Your task to perform on an android device: open app "Move to iOS" Image 0: 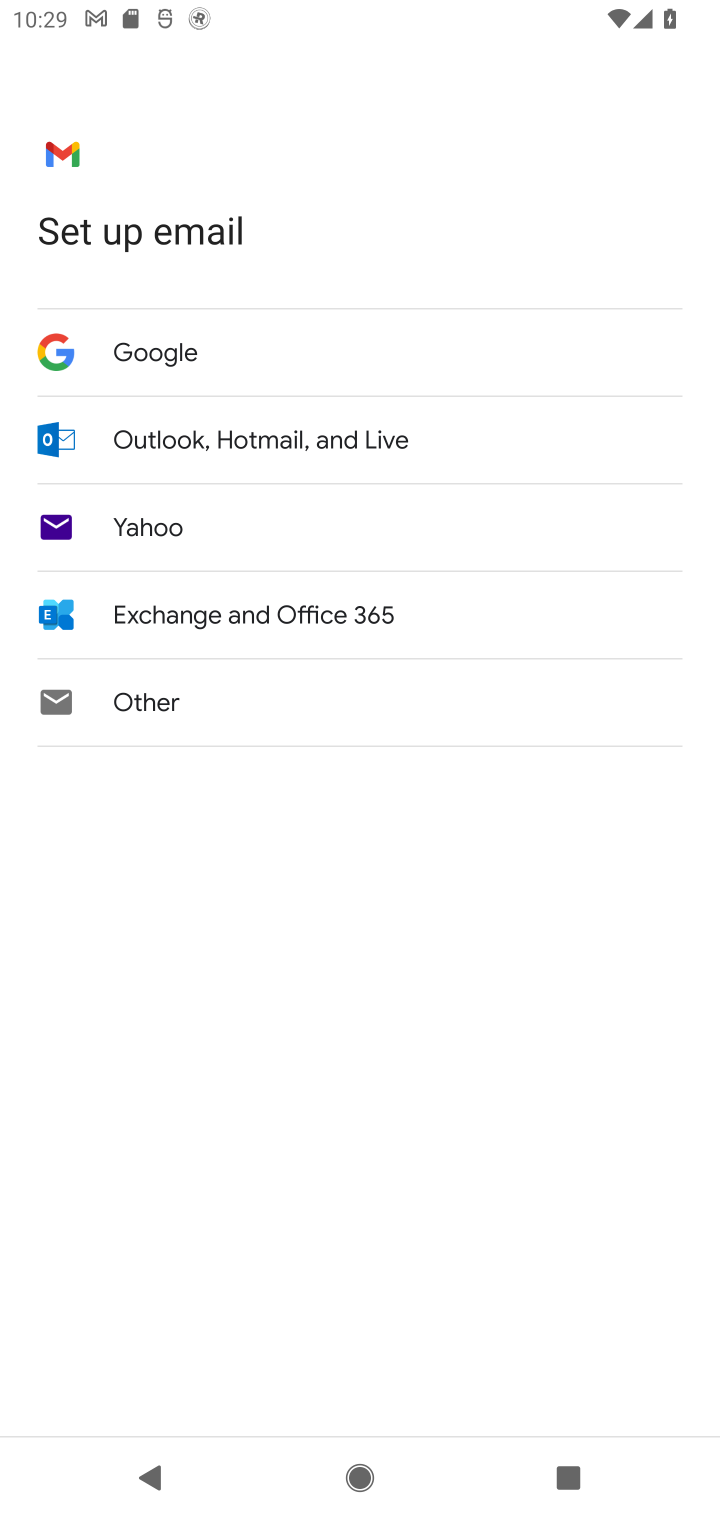
Step 0: press home button
Your task to perform on an android device: open app "Move to iOS" Image 1: 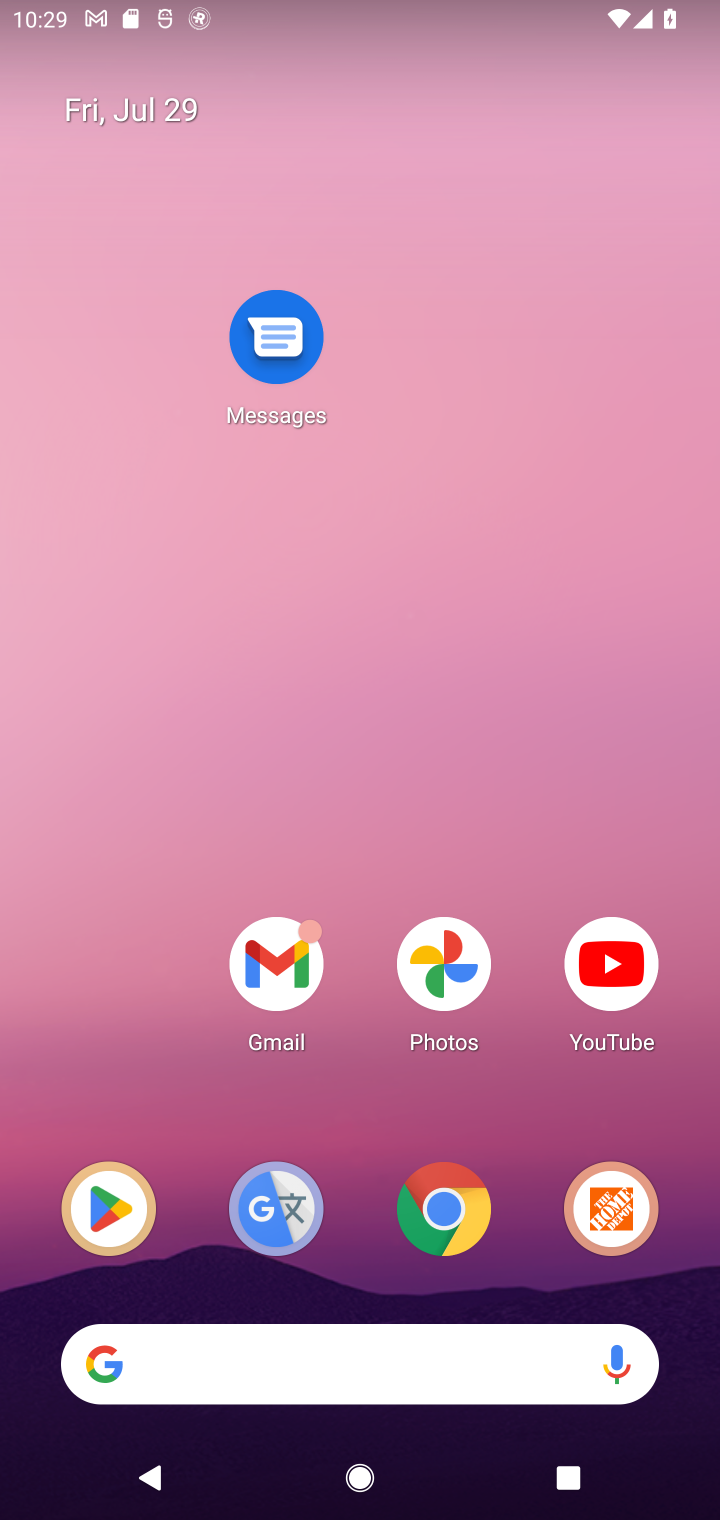
Step 1: drag from (368, 1370) to (435, 107)
Your task to perform on an android device: open app "Move to iOS" Image 2: 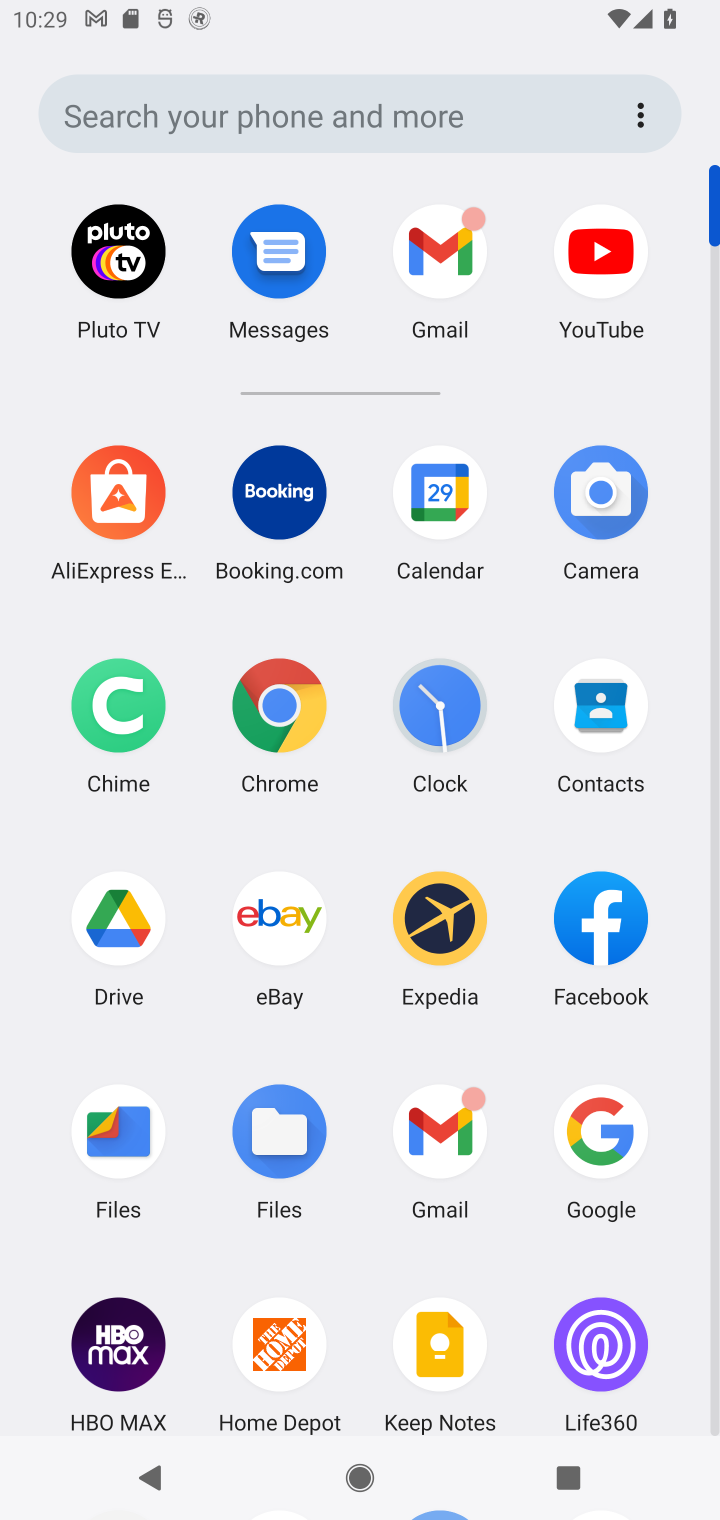
Step 2: drag from (354, 1134) to (437, 550)
Your task to perform on an android device: open app "Move to iOS" Image 3: 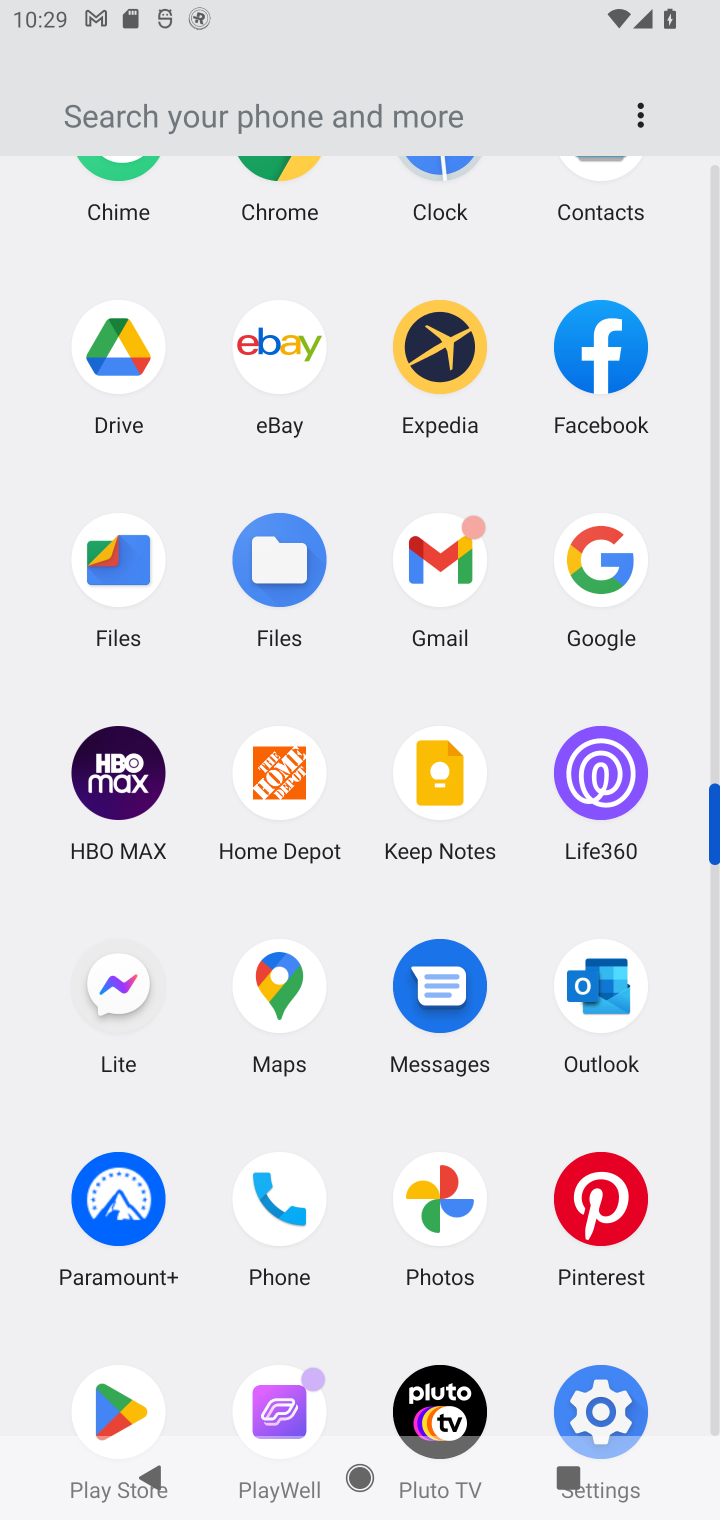
Step 3: click (110, 1408)
Your task to perform on an android device: open app "Move to iOS" Image 4: 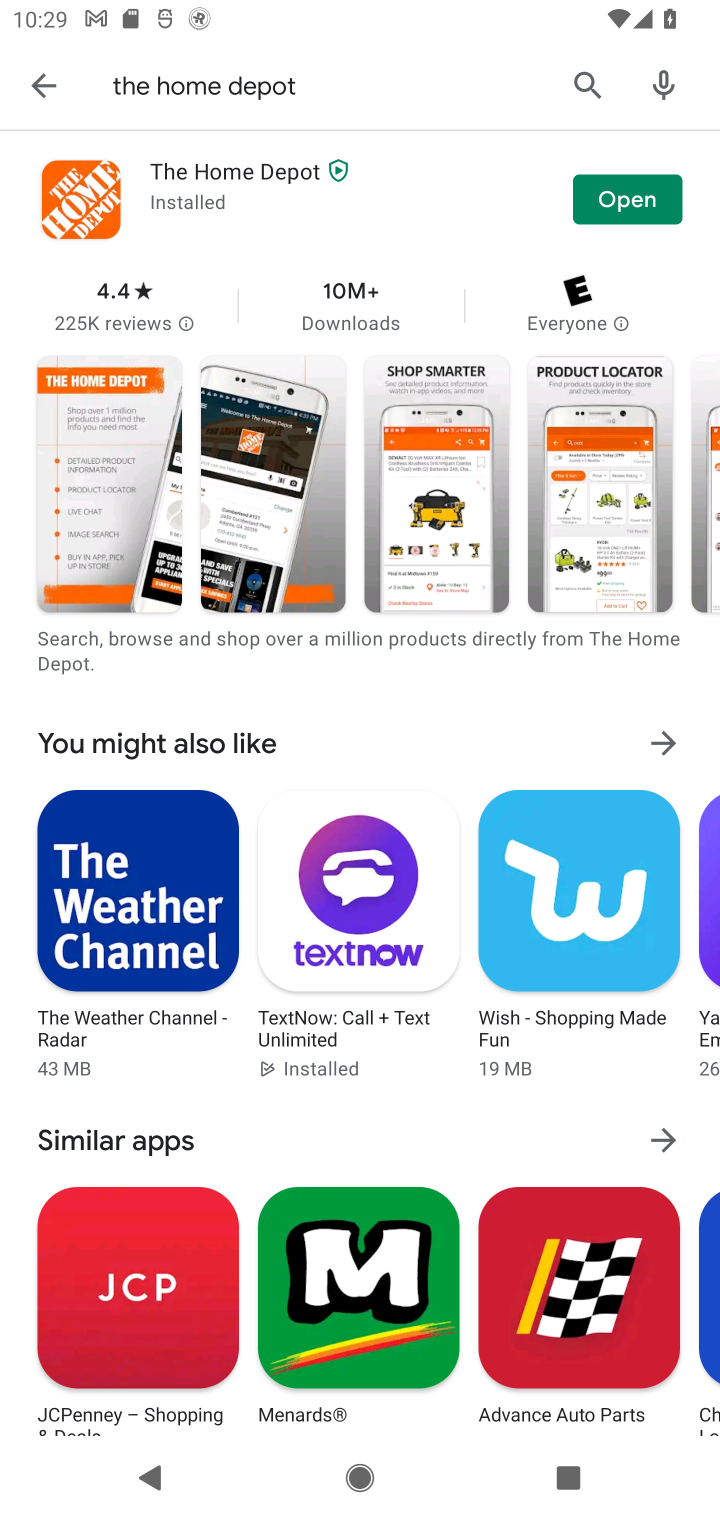
Step 4: click (572, 94)
Your task to perform on an android device: open app "Move to iOS" Image 5: 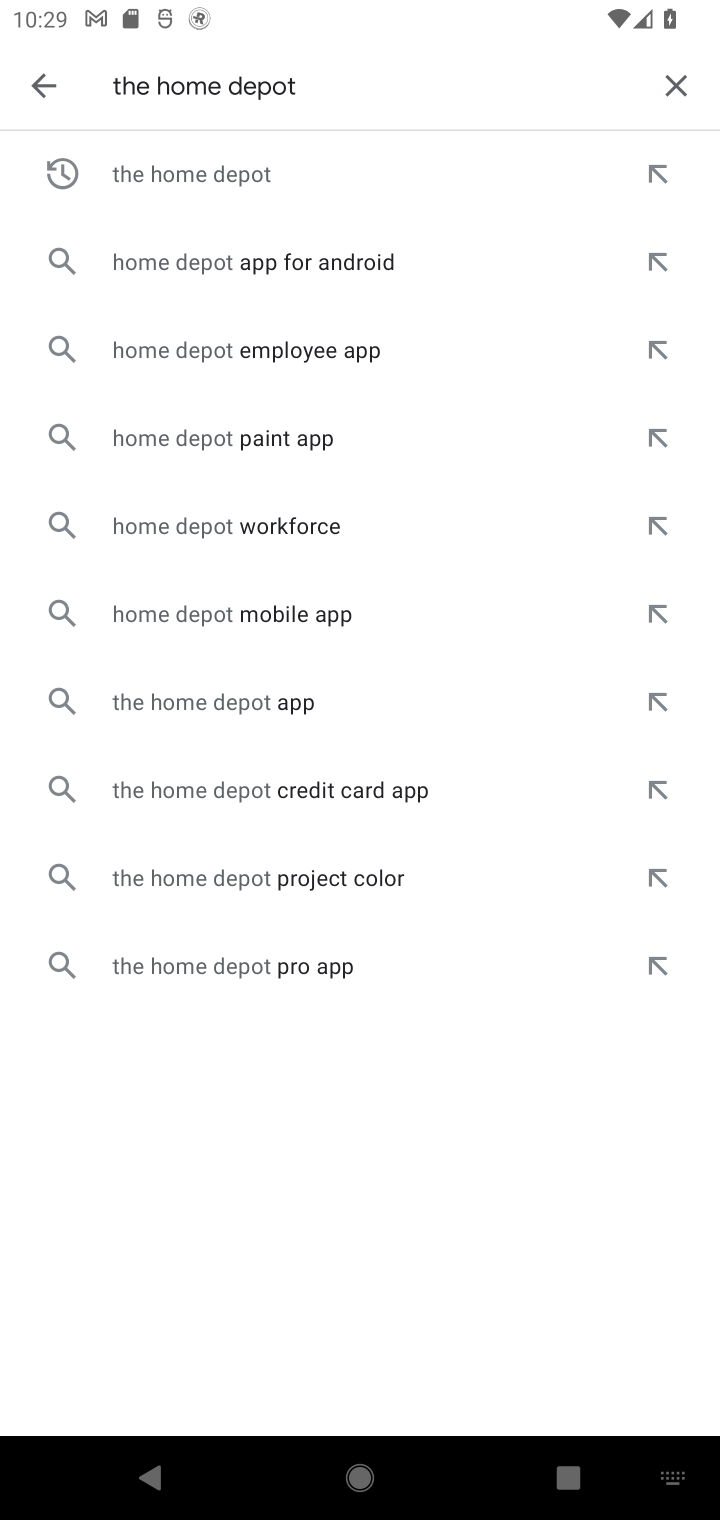
Step 5: click (672, 81)
Your task to perform on an android device: open app "Move to iOS" Image 6: 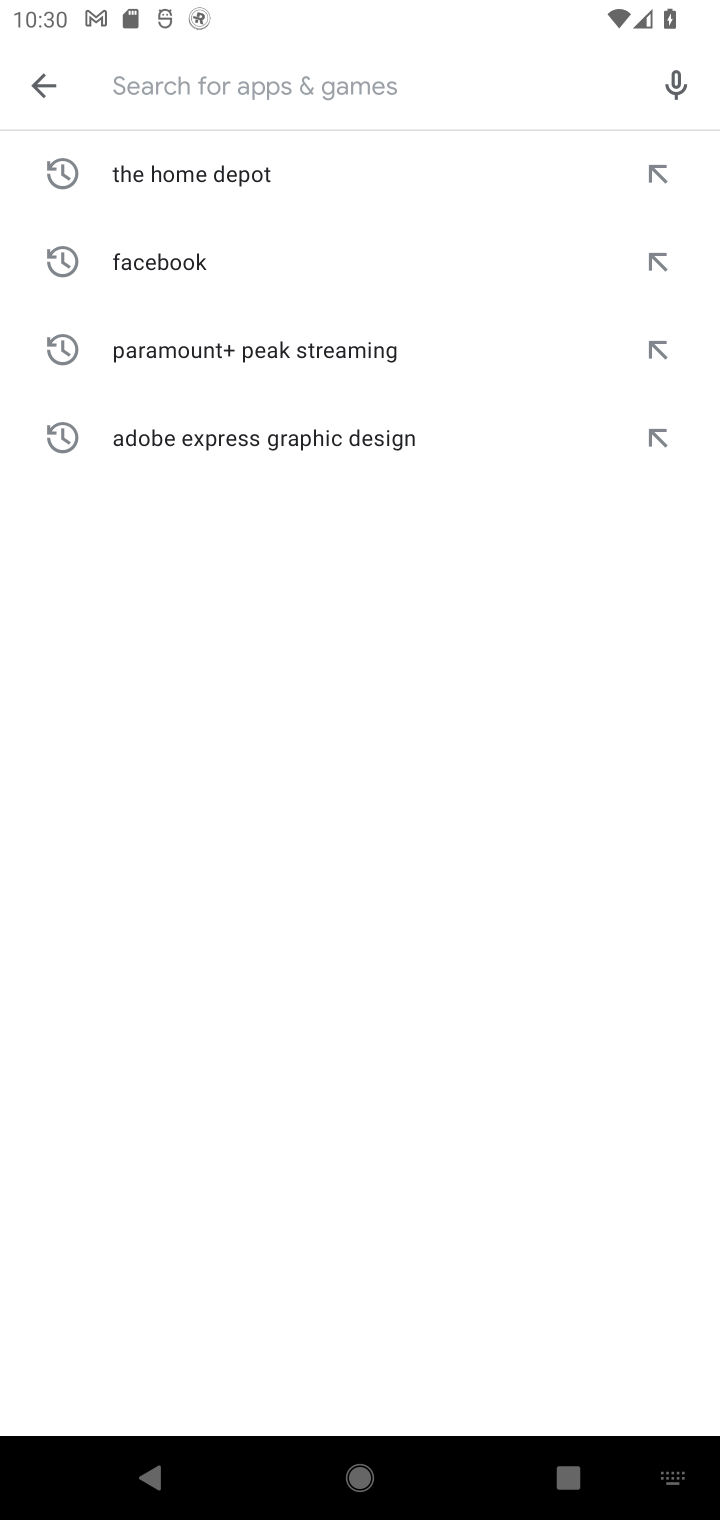
Step 6: click (373, 85)
Your task to perform on an android device: open app "Move to iOS" Image 7: 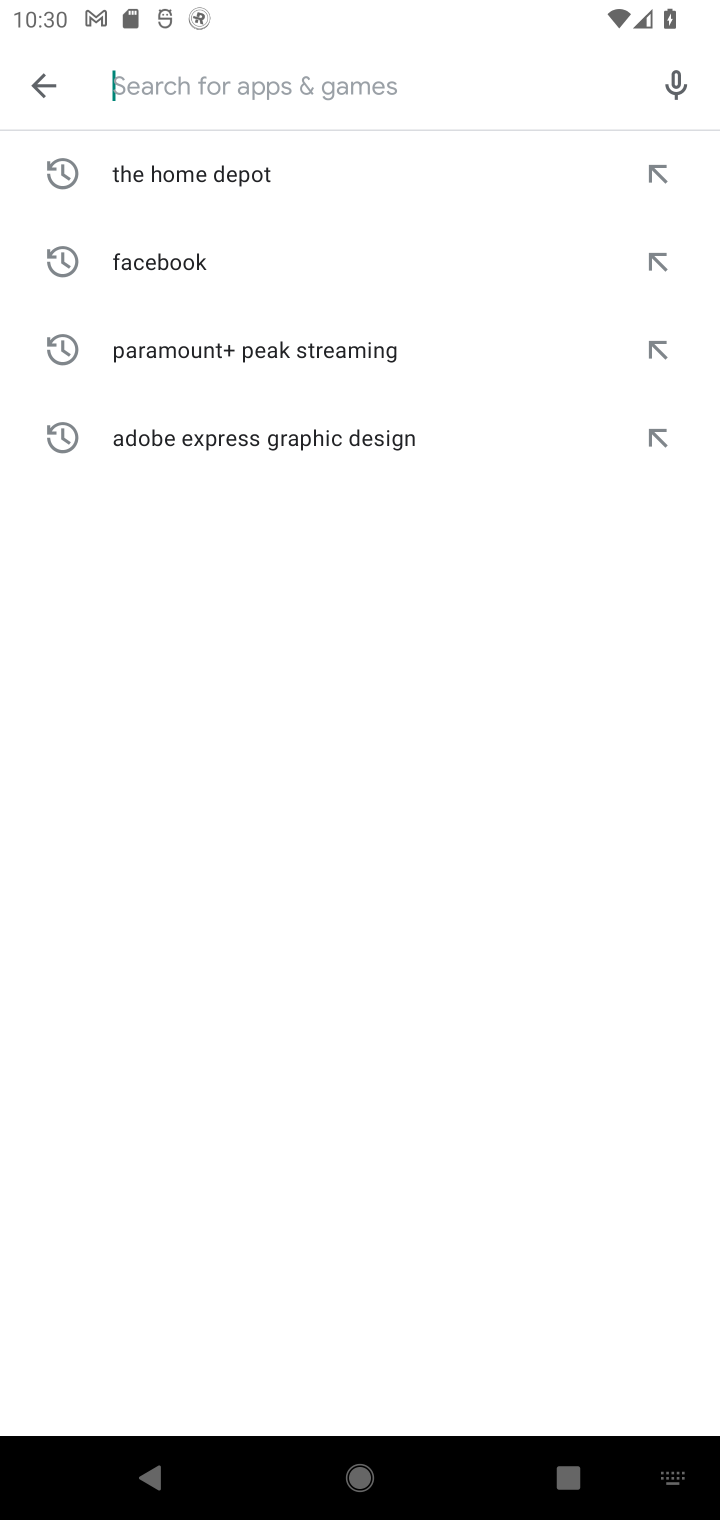
Step 7: type "Move to iOS"
Your task to perform on an android device: open app "Move to iOS" Image 8: 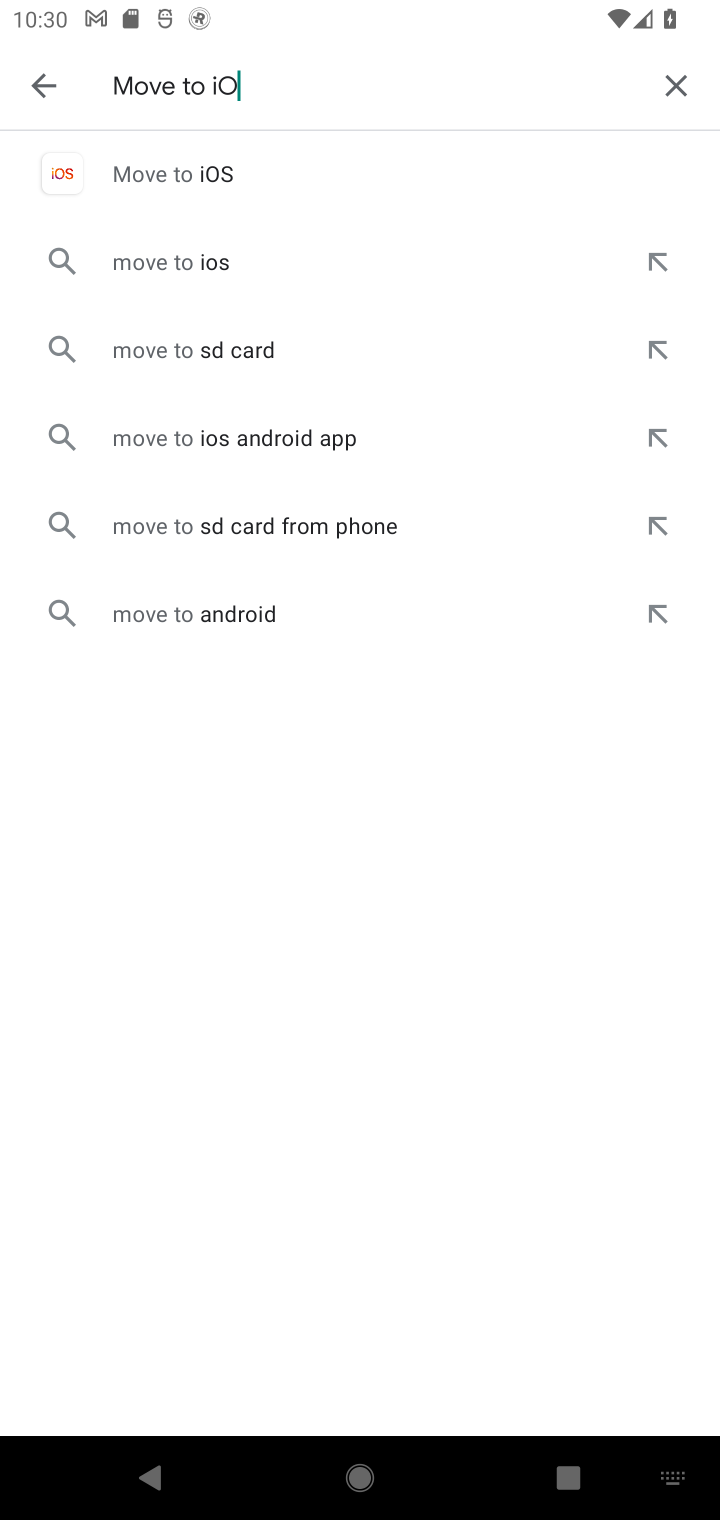
Step 8: type ""
Your task to perform on an android device: open app "Move to iOS" Image 9: 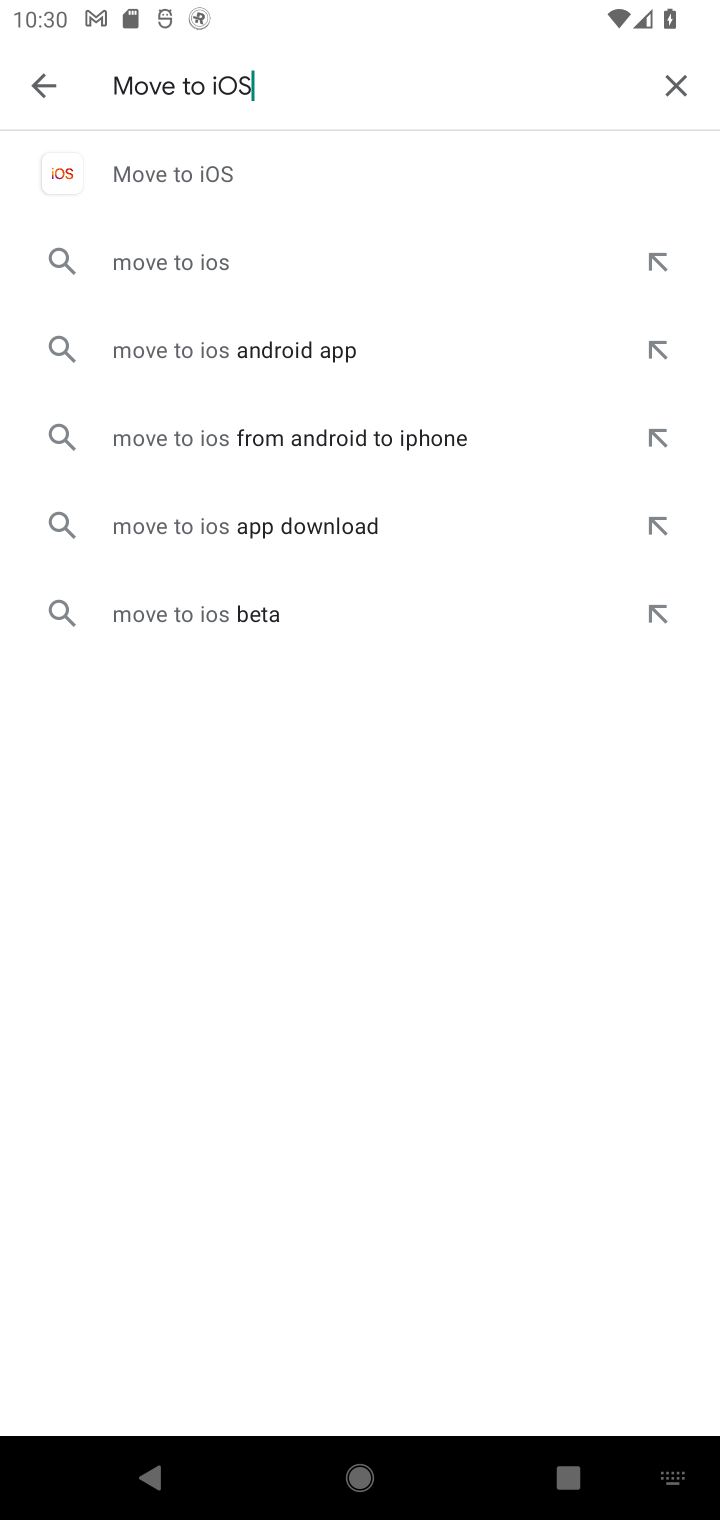
Step 9: click (193, 185)
Your task to perform on an android device: open app "Move to iOS" Image 10: 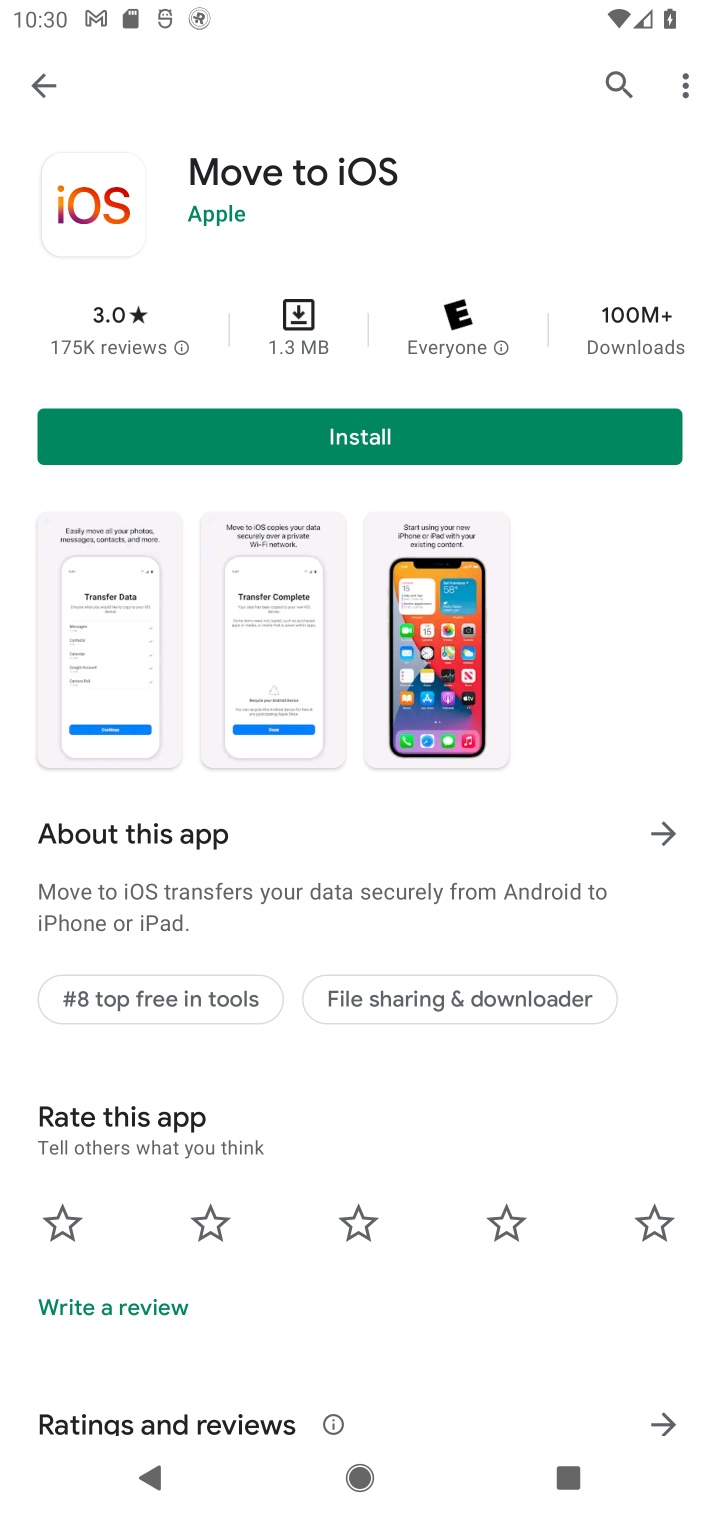
Step 10: task complete